Your task to perform on an android device: find photos in the google photos app Image 0: 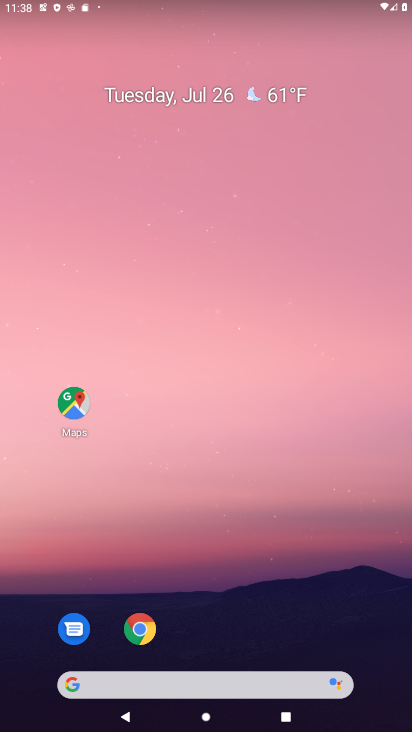
Step 0: drag from (291, 645) to (261, 264)
Your task to perform on an android device: find photos in the google photos app Image 1: 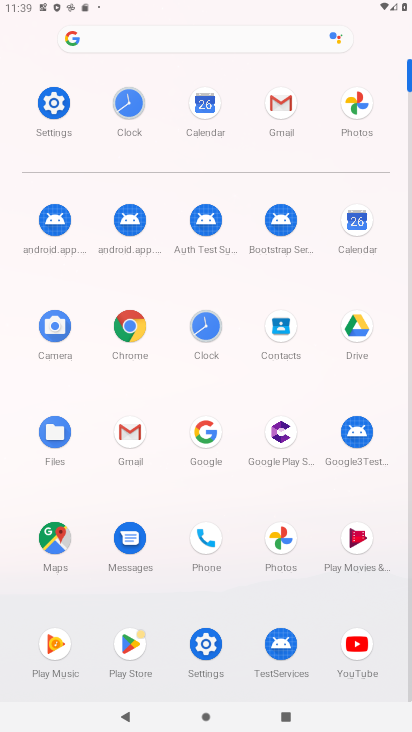
Step 1: click (278, 528)
Your task to perform on an android device: find photos in the google photos app Image 2: 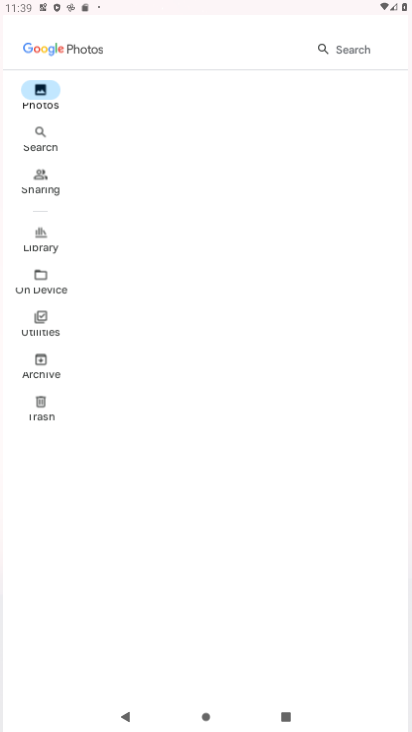
Step 2: task complete